Your task to perform on an android device: Go to notification settings Image 0: 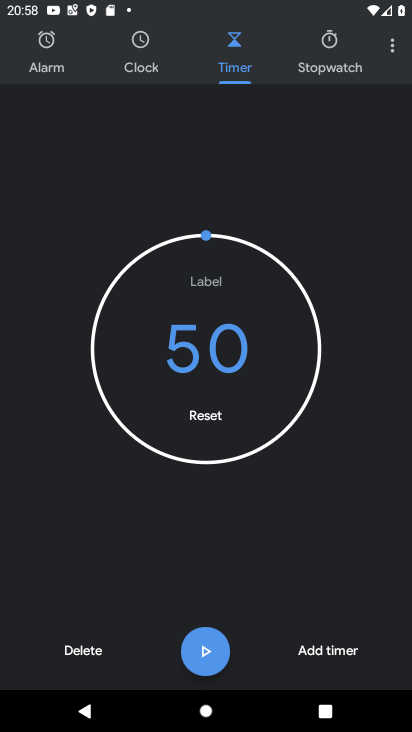
Step 0: press home button
Your task to perform on an android device: Go to notification settings Image 1: 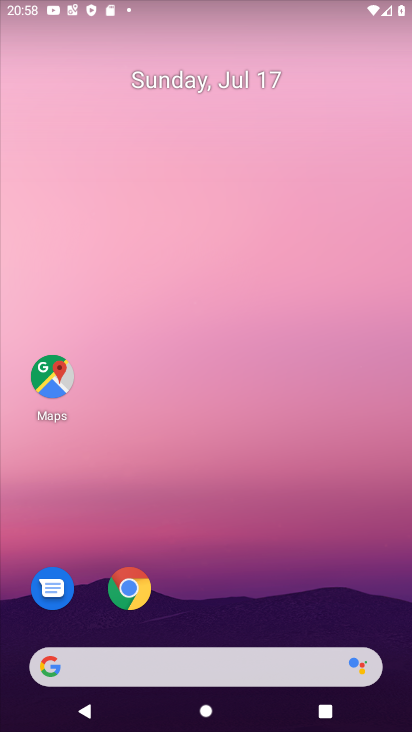
Step 1: drag from (286, 599) to (207, 28)
Your task to perform on an android device: Go to notification settings Image 2: 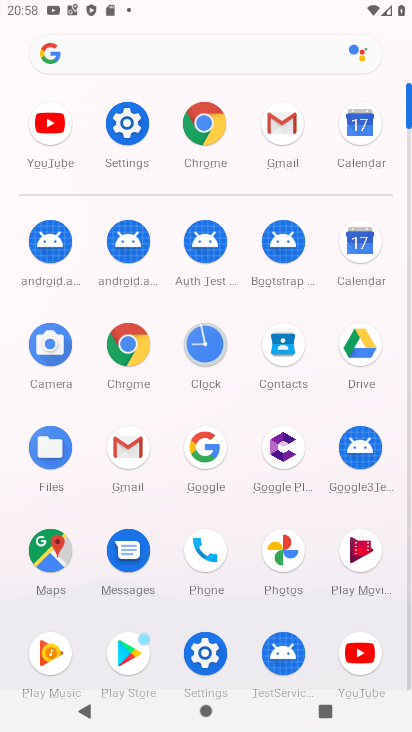
Step 2: click (145, 113)
Your task to perform on an android device: Go to notification settings Image 3: 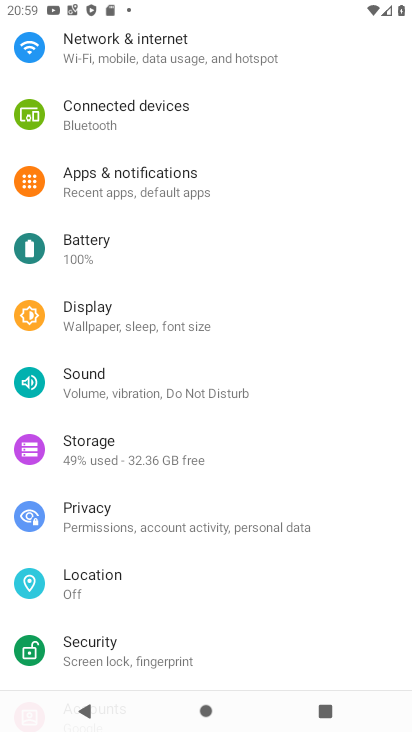
Step 3: drag from (264, 75) to (264, 117)
Your task to perform on an android device: Go to notification settings Image 4: 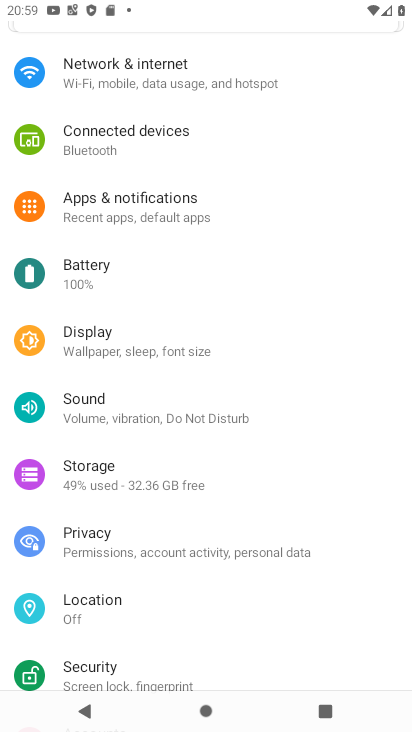
Step 4: click (139, 220)
Your task to perform on an android device: Go to notification settings Image 5: 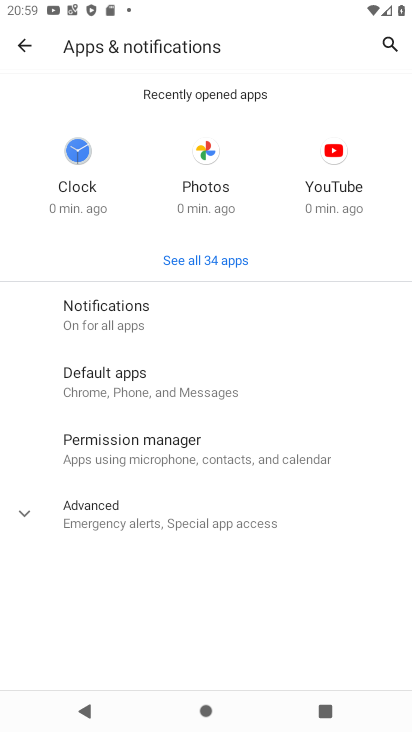
Step 5: click (76, 330)
Your task to perform on an android device: Go to notification settings Image 6: 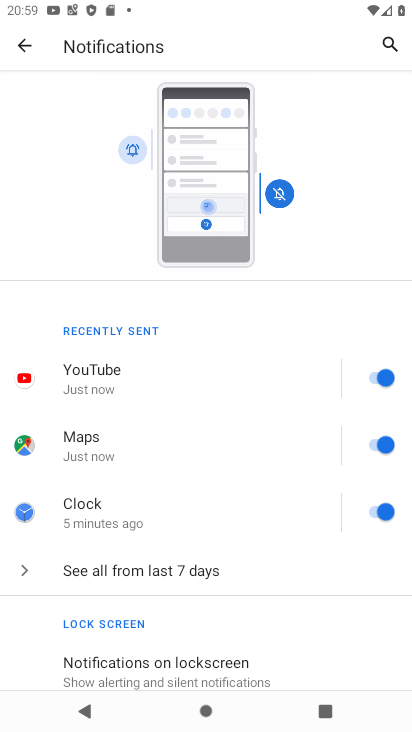
Step 6: task complete